Your task to perform on an android device: turn on javascript in the chrome app Image 0: 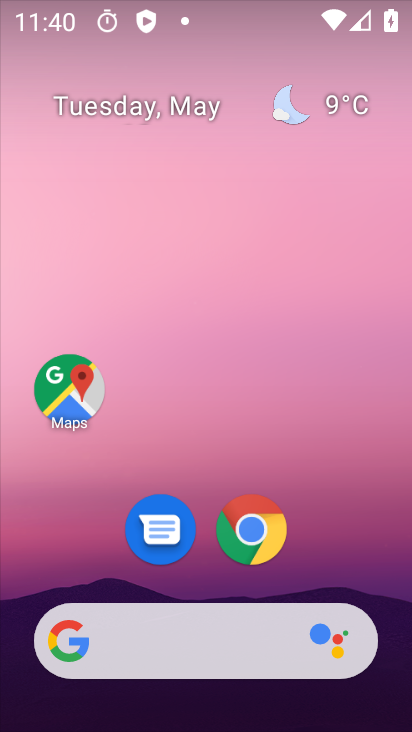
Step 0: click (257, 536)
Your task to perform on an android device: turn on javascript in the chrome app Image 1: 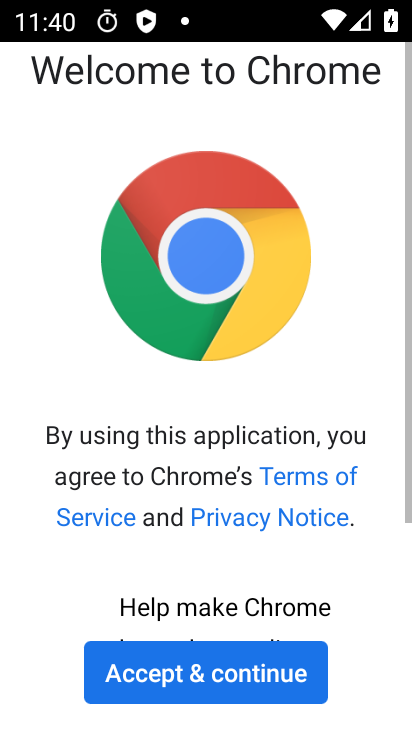
Step 1: click (258, 682)
Your task to perform on an android device: turn on javascript in the chrome app Image 2: 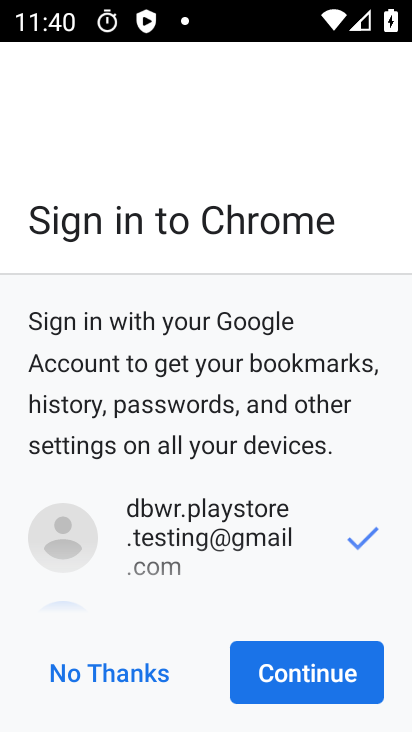
Step 2: click (311, 685)
Your task to perform on an android device: turn on javascript in the chrome app Image 3: 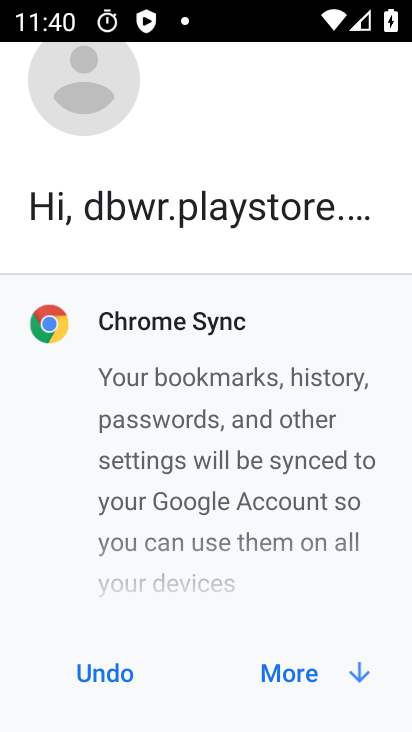
Step 3: click (311, 685)
Your task to perform on an android device: turn on javascript in the chrome app Image 4: 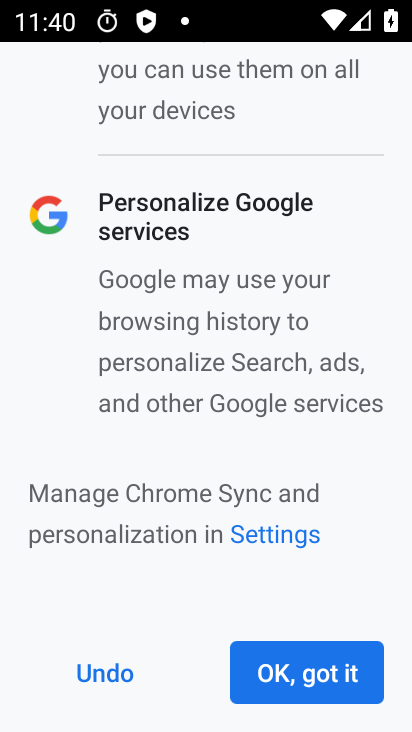
Step 4: click (311, 685)
Your task to perform on an android device: turn on javascript in the chrome app Image 5: 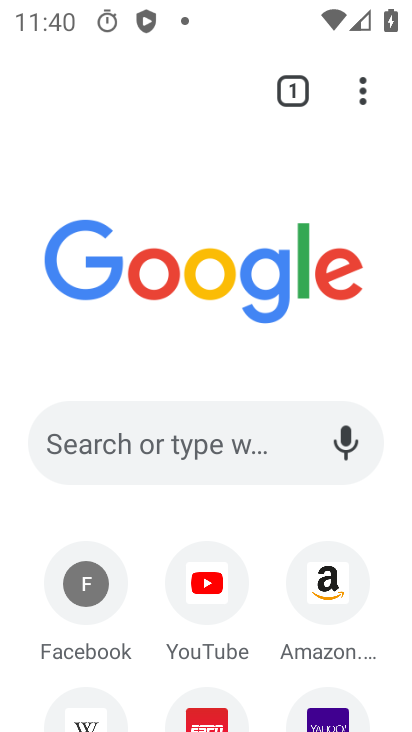
Step 5: drag from (375, 92) to (198, 572)
Your task to perform on an android device: turn on javascript in the chrome app Image 6: 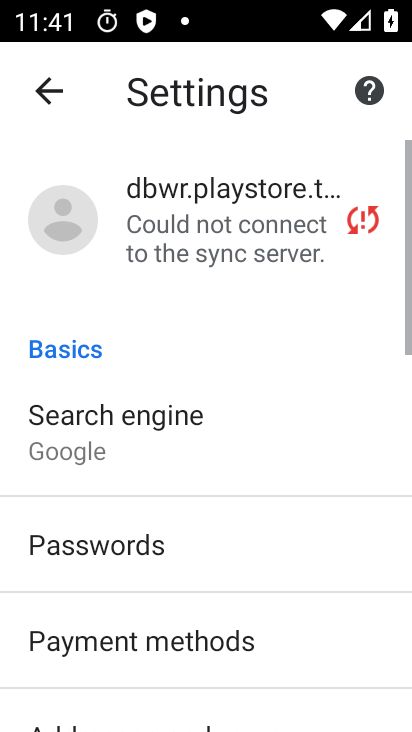
Step 6: drag from (124, 642) to (265, 144)
Your task to perform on an android device: turn on javascript in the chrome app Image 7: 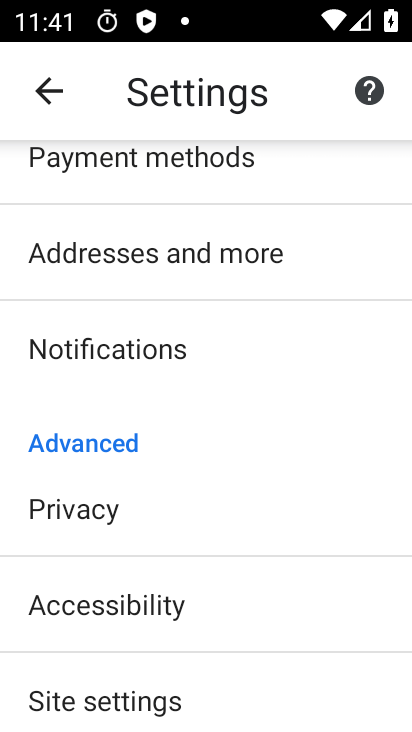
Step 7: drag from (157, 642) to (217, 349)
Your task to perform on an android device: turn on javascript in the chrome app Image 8: 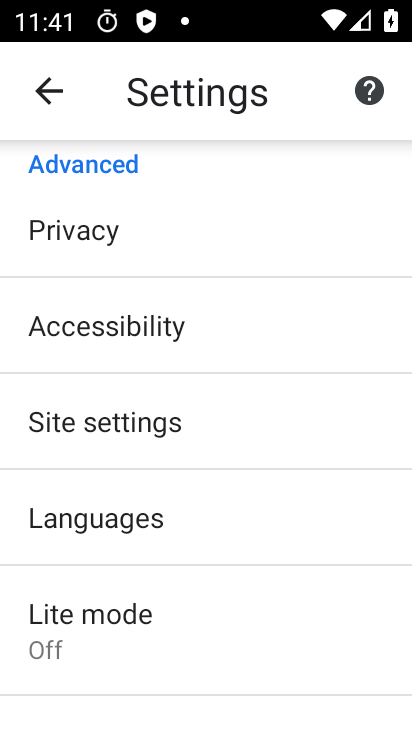
Step 8: click (150, 438)
Your task to perform on an android device: turn on javascript in the chrome app Image 9: 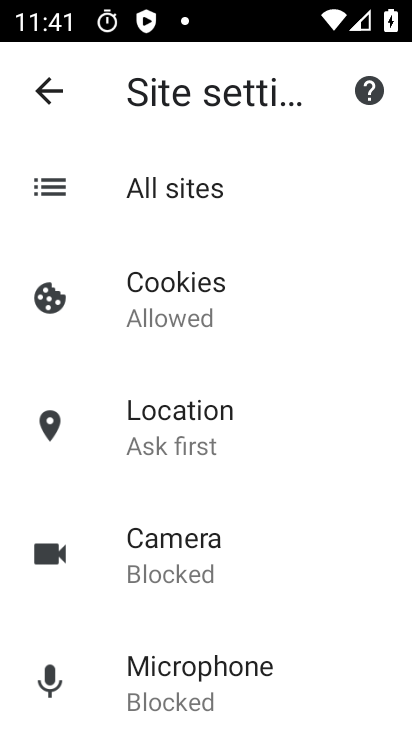
Step 9: drag from (174, 679) to (272, 265)
Your task to perform on an android device: turn on javascript in the chrome app Image 10: 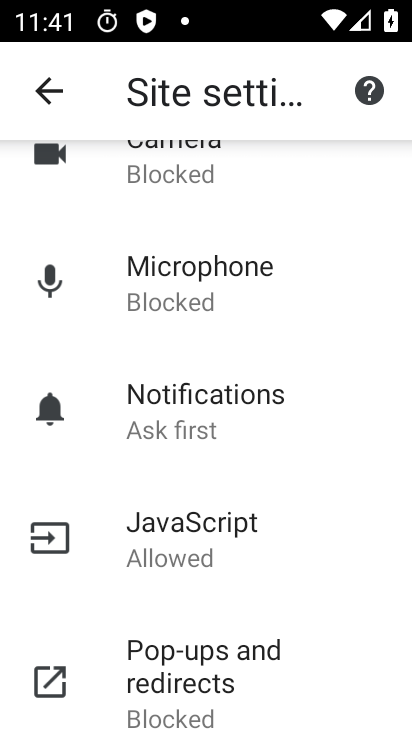
Step 10: click (182, 547)
Your task to perform on an android device: turn on javascript in the chrome app Image 11: 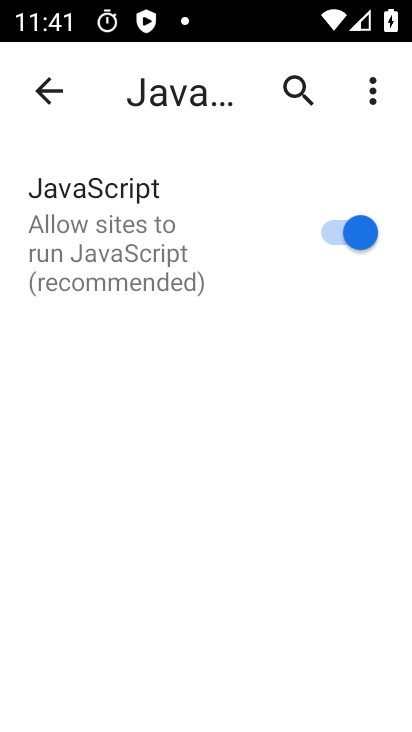
Step 11: task complete